Your task to perform on an android device: turn off notifications in google photos Image 0: 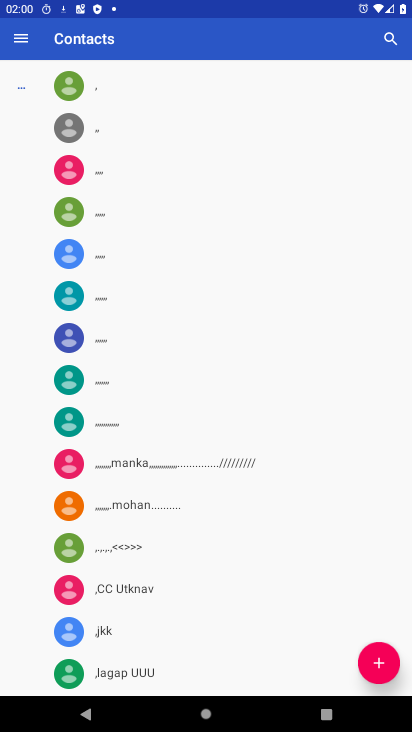
Step 0: press home button
Your task to perform on an android device: turn off notifications in google photos Image 1: 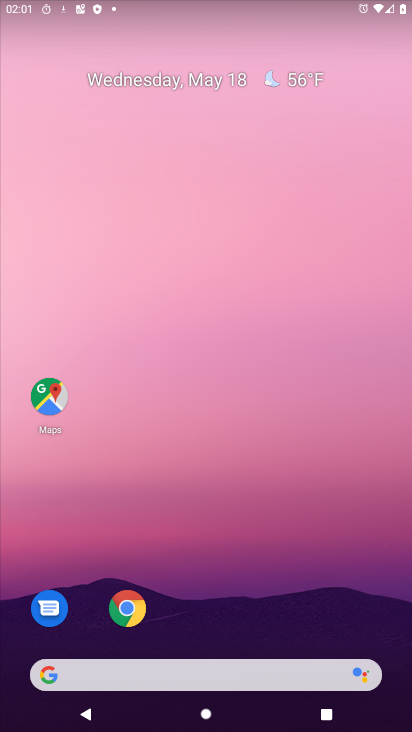
Step 1: drag from (276, 688) to (206, 292)
Your task to perform on an android device: turn off notifications in google photos Image 2: 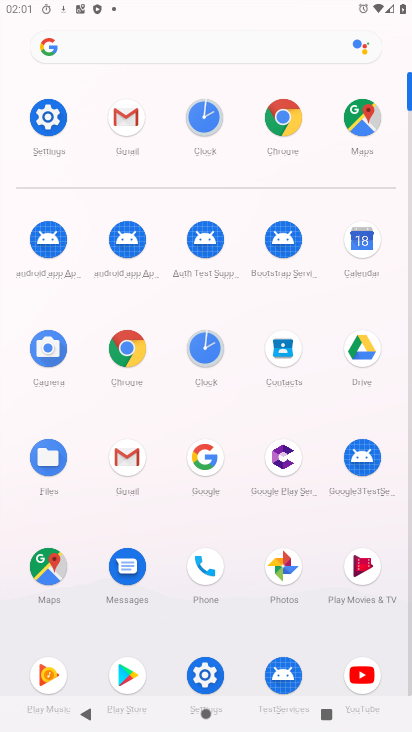
Step 2: click (271, 558)
Your task to perform on an android device: turn off notifications in google photos Image 3: 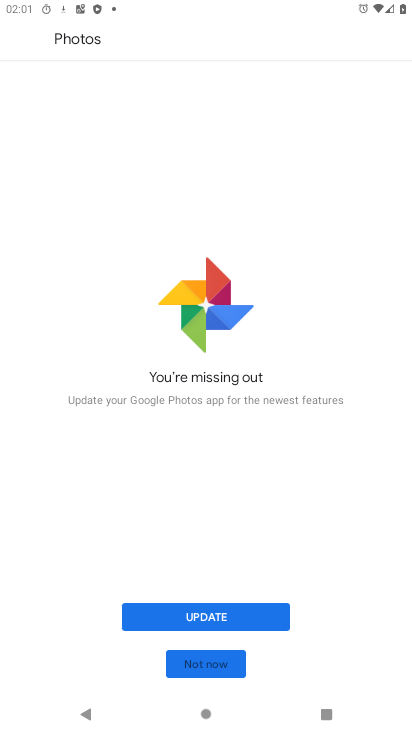
Step 3: click (236, 612)
Your task to perform on an android device: turn off notifications in google photos Image 4: 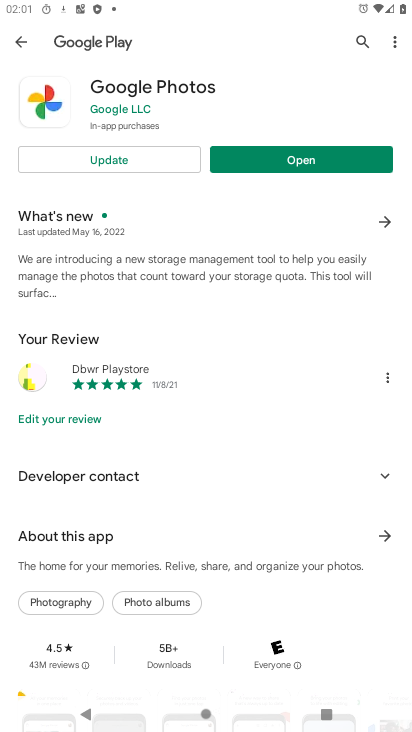
Step 4: click (301, 128)
Your task to perform on an android device: turn off notifications in google photos Image 5: 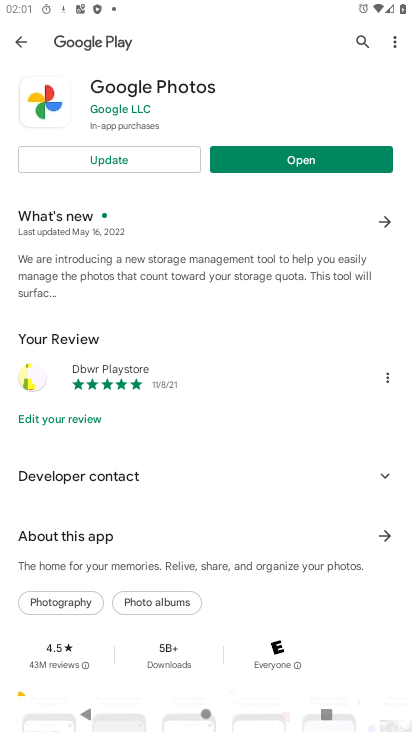
Step 5: click (297, 149)
Your task to perform on an android device: turn off notifications in google photos Image 6: 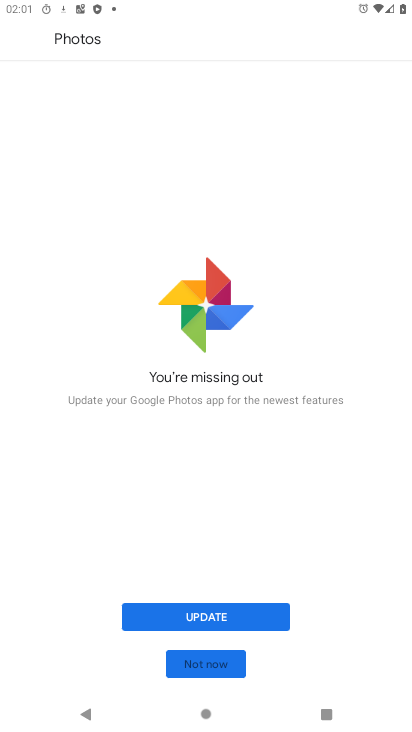
Step 6: click (209, 610)
Your task to perform on an android device: turn off notifications in google photos Image 7: 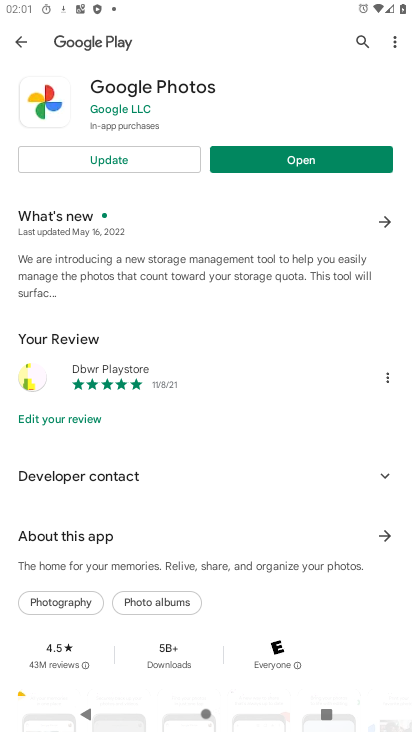
Step 7: click (93, 157)
Your task to perform on an android device: turn off notifications in google photos Image 8: 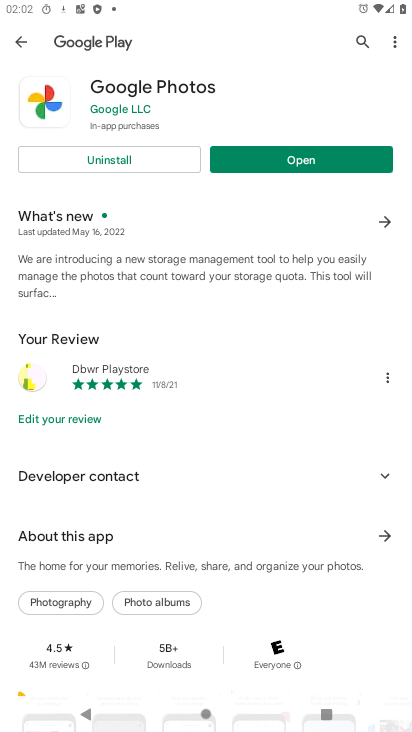
Step 8: click (304, 156)
Your task to perform on an android device: turn off notifications in google photos Image 9: 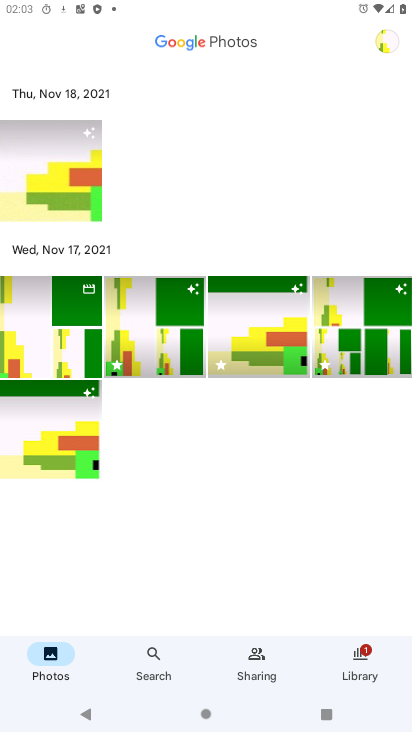
Step 9: click (387, 48)
Your task to perform on an android device: turn off notifications in google photos Image 10: 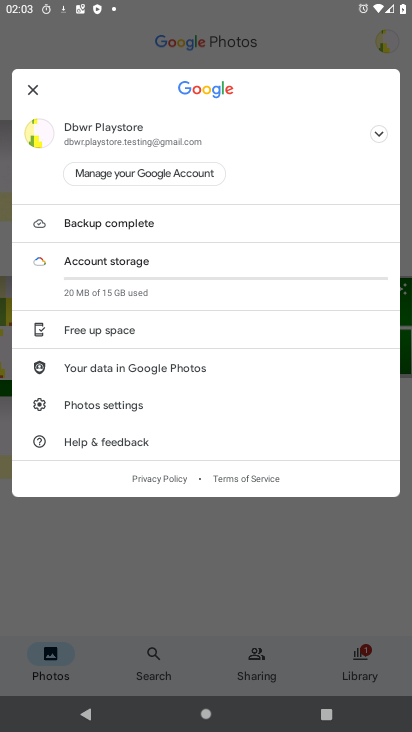
Step 10: click (116, 400)
Your task to perform on an android device: turn off notifications in google photos Image 11: 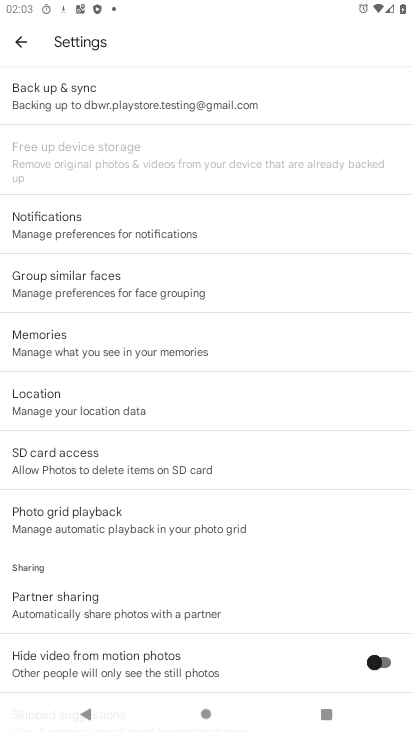
Step 11: click (109, 239)
Your task to perform on an android device: turn off notifications in google photos Image 12: 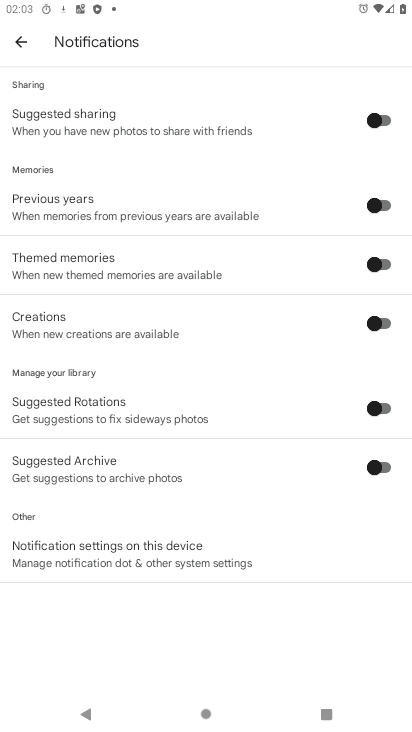
Step 12: click (133, 563)
Your task to perform on an android device: turn off notifications in google photos Image 13: 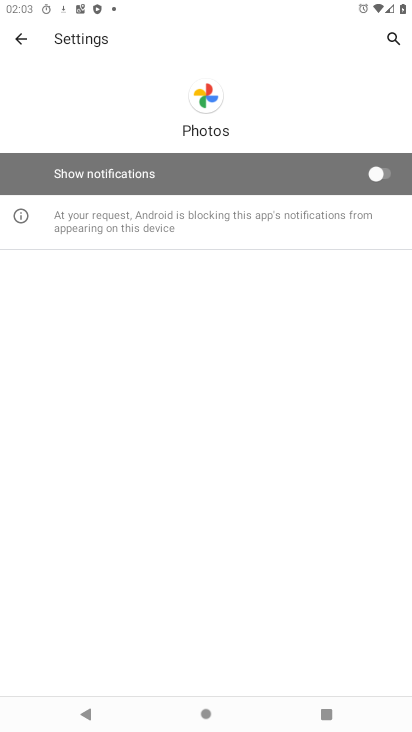
Step 13: click (375, 172)
Your task to perform on an android device: turn off notifications in google photos Image 14: 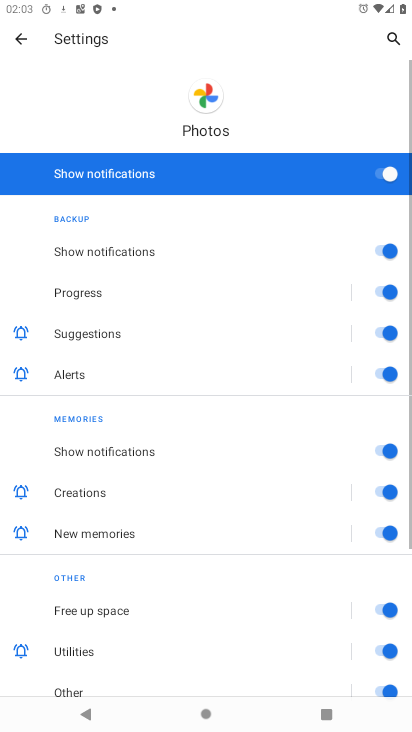
Step 14: click (379, 168)
Your task to perform on an android device: turn off notifications in google photos Image 15: 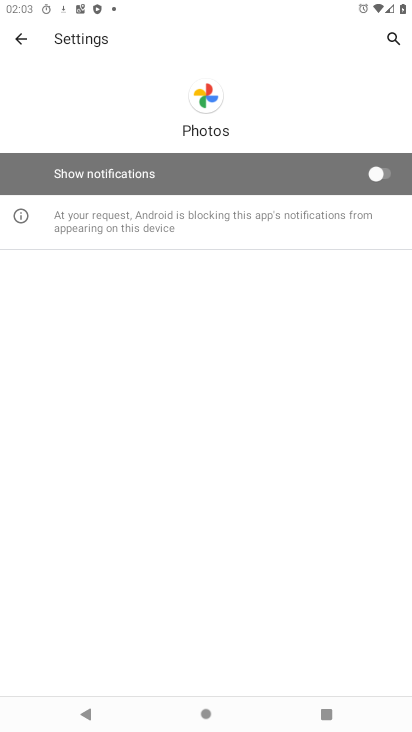
Step 15: task complete